Your task to perform on an android device: Open Youtube and go to the subscriptions tab Image 0: 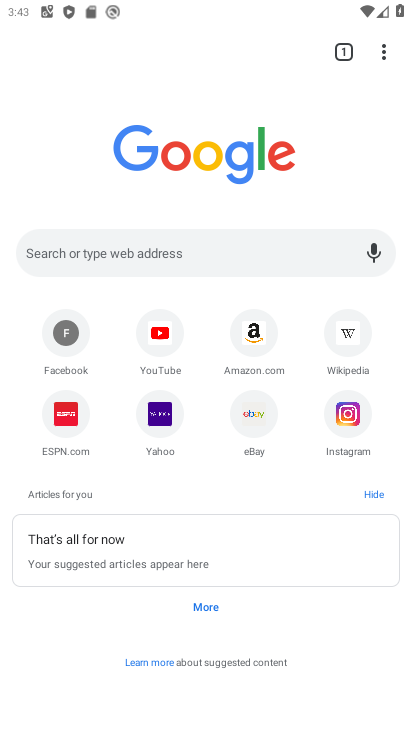
Step 0: press home button
Your task to perform on an android device: Open Youtube and go to the subscriptions tab Image 1: 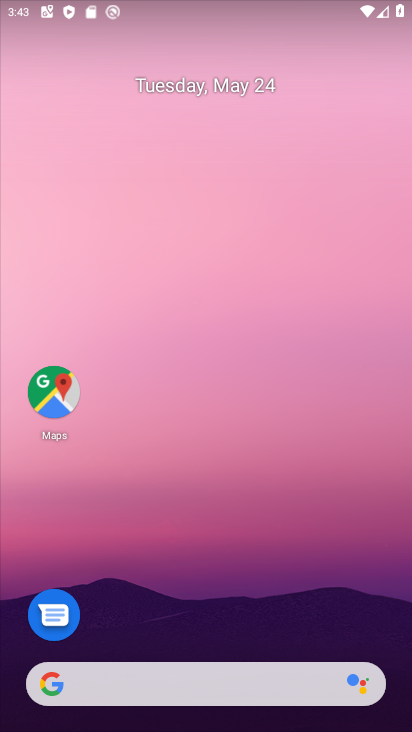
Step 1: drag from (140, 634) to (235, 128)
Your task to perform on an android device: Open Youtube and go to the subscriptions tab Image 2: 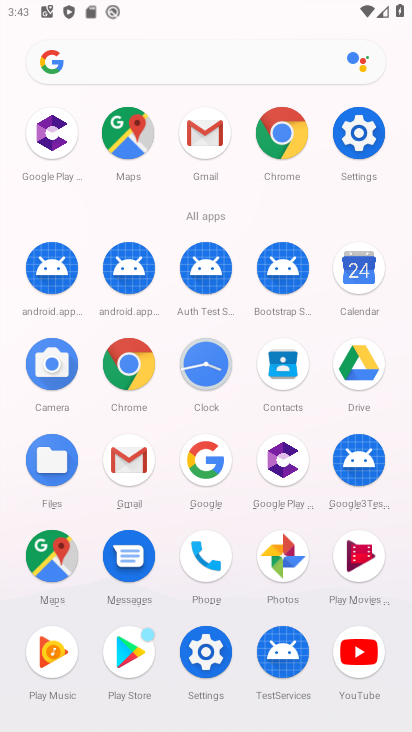
Step 2: drag from (136, 599) to (226, 363)
Your task to perform on an android device: Open Youtube and go to the subscriptions tab Image 3: 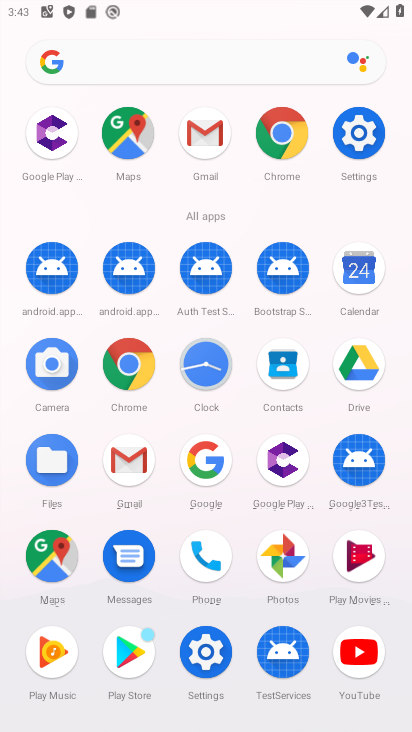
Step 3: click (345, 654)
Your task to perform on an android device: Open Youtube and go to the subscriptions tab Image 4: 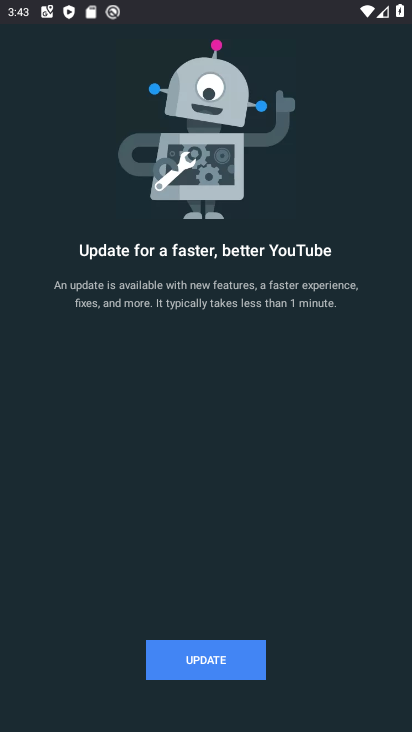
Step 4: click (195, 656)
Your task to perform on an android device: Open Youtube and go to the subscriptions tab Image 5: 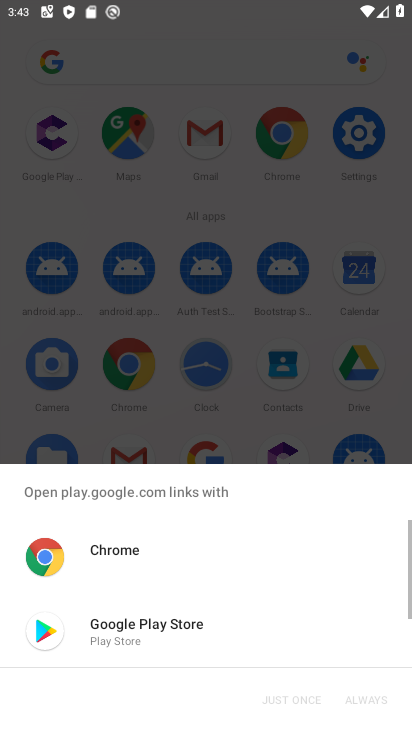
Step 5: click (176, 635)
Your task to perform on an android device: Open Youtube and go to the subscriptions tab Image 6: 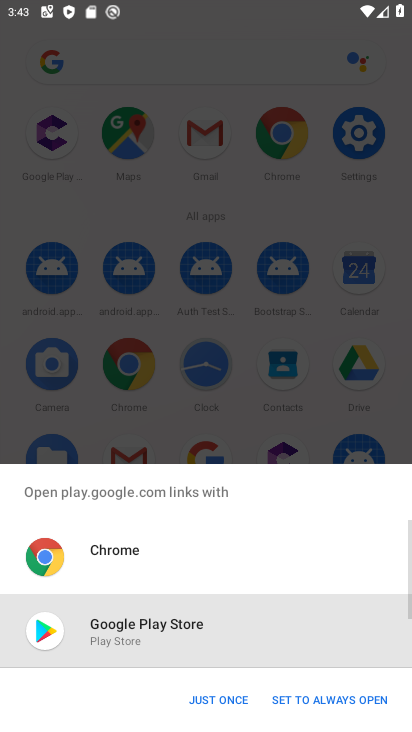
Step 6: click (208, 698)
Your task to perform on an android device: Open Youtube and go to the subscriptions tab Image 7: 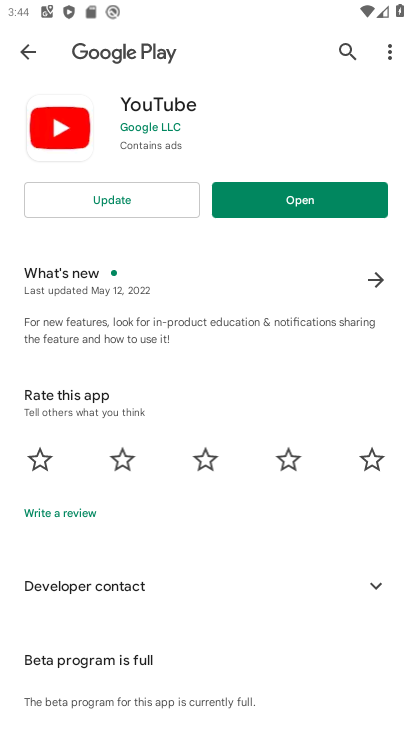
Step 7: click (90, 194)
Your task to perform on an android device: Open Youtube and go to the subscriptions tab Image 8: 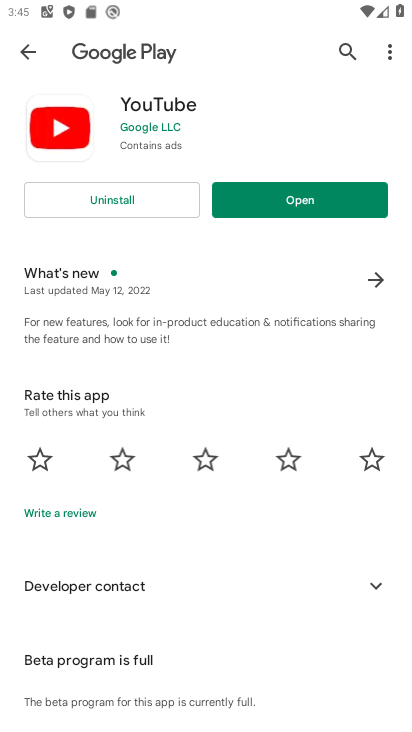
Step 8: click (252, 205)
Your task to perform on an android device: Open Youtube and go to the subscriptions tab Image 9: 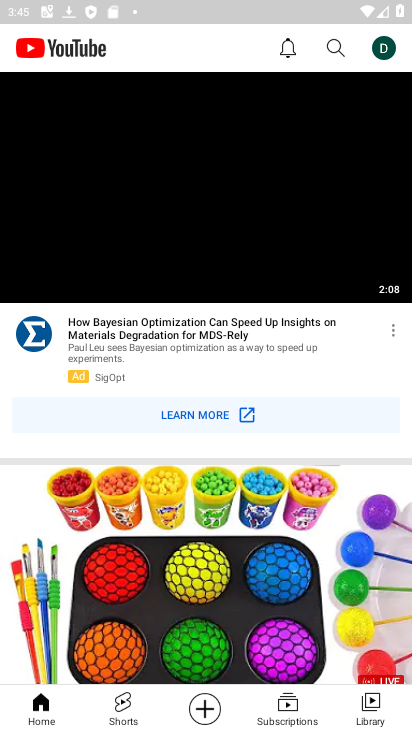
Step 9: click (284, 700)
Your task to perform on an android device: Open Youtube and go to the subscriptions tab Image 10: 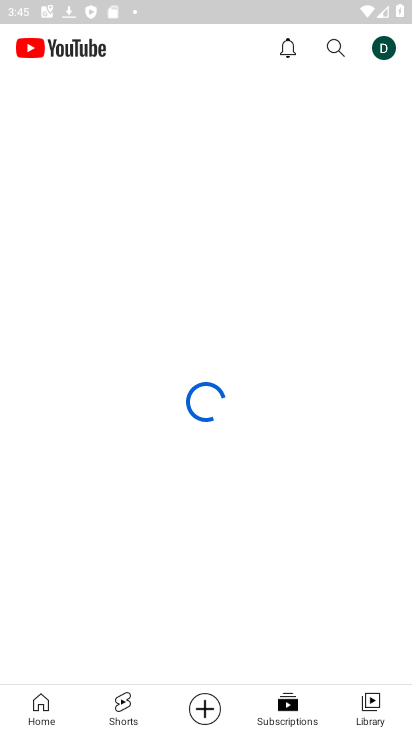
Step 10: click (286, 706)
Your task to perform on an android device: Open Youtube and go to the subscriptions tab Image 11: 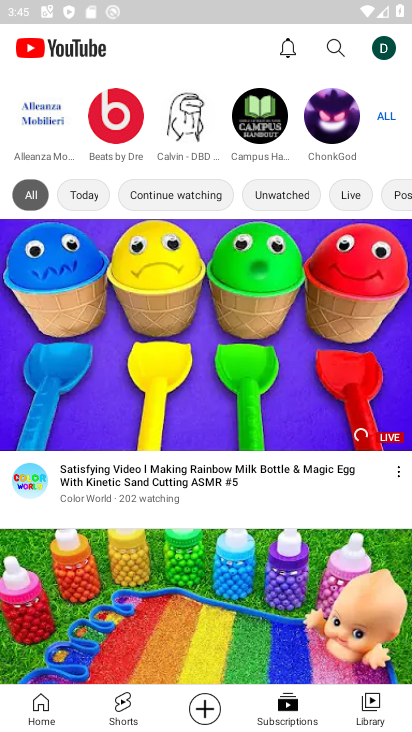
Step 11: task complete